Your task to perform on an android device: turn off sleep mode Image 0: 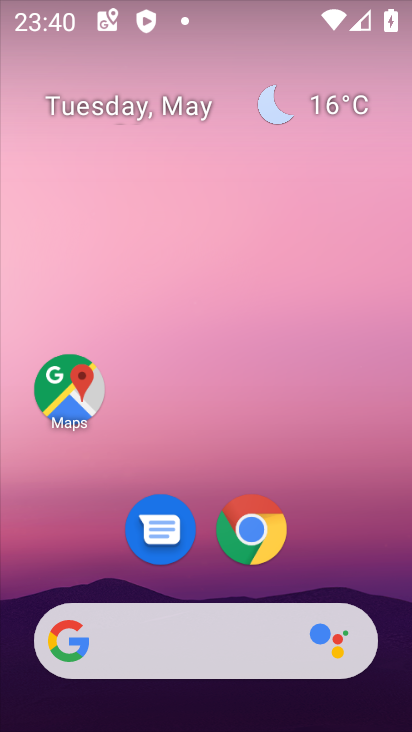
Step 0: drag from (87, 596) to (167, 91)
Your task to perform on an android device: turn off sleep mode Image 1: 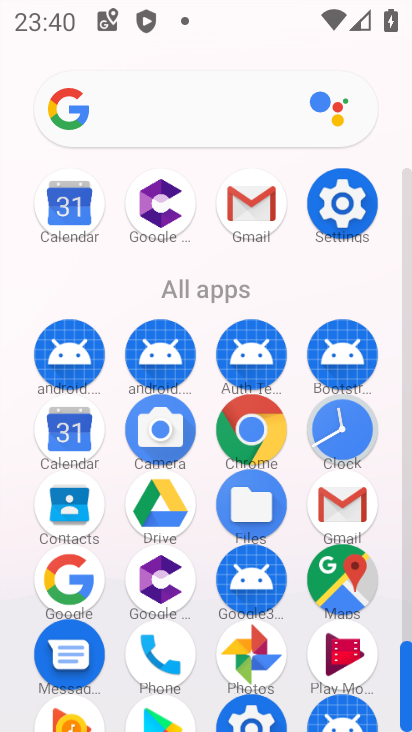
Step 1: drag from (174, 616) to (248, 274)
Your task to perform on an android device: turn off sleep mode Image 2: 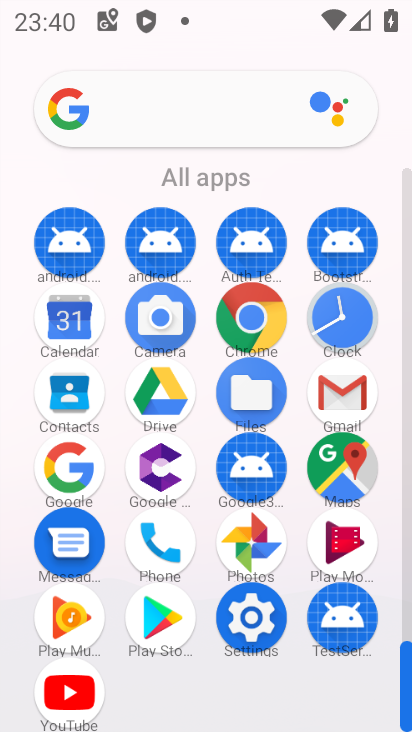
Step 2: click (275, 622)
Your task to perform on an android device: turn off sleep mode Image 3: 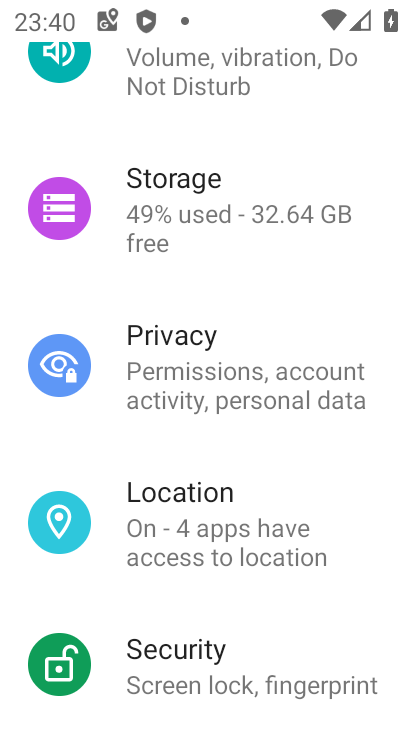
Step 3: drag from (206, 233) to (157, 614)
Your task to perform on an android device: turn off sleep mode Image 4: 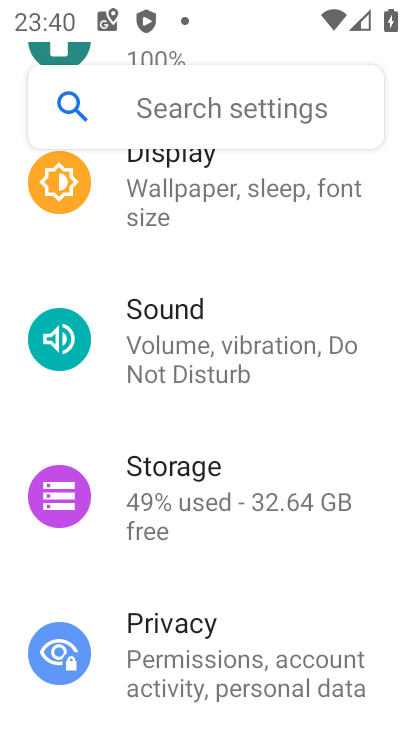
Step 4: click (169, 221)
Your task to perform on an android device: turn off sleep mode Image 5: 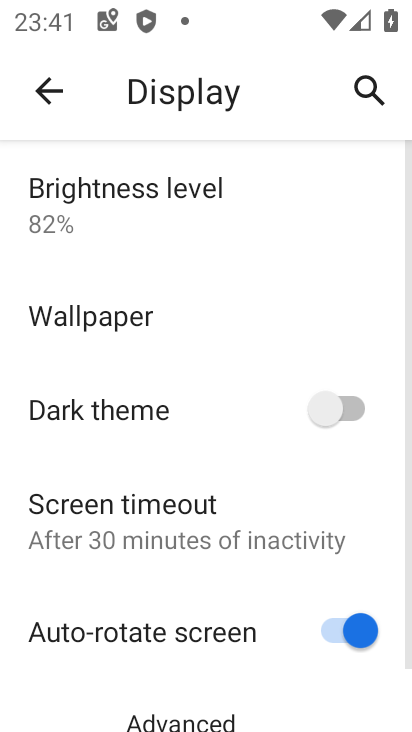
Step 5: drag from (165, 687) to (240, 223)
Your task to perform on an android device: turn off sleep mode Image 6: 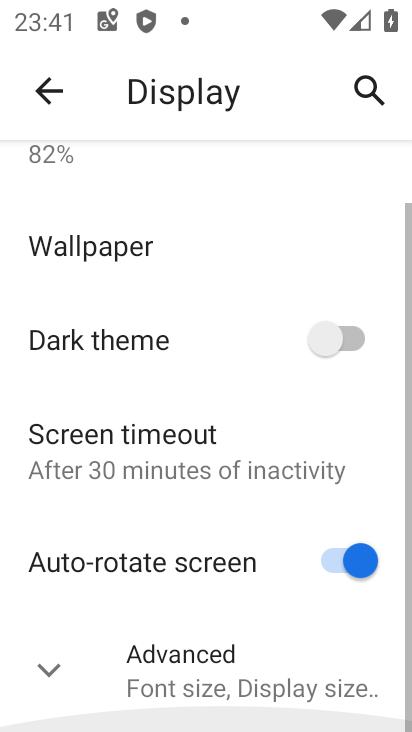
Step 6: click (162, 660)
Your task to perform on an android device: turn off sleep mode Image 7: 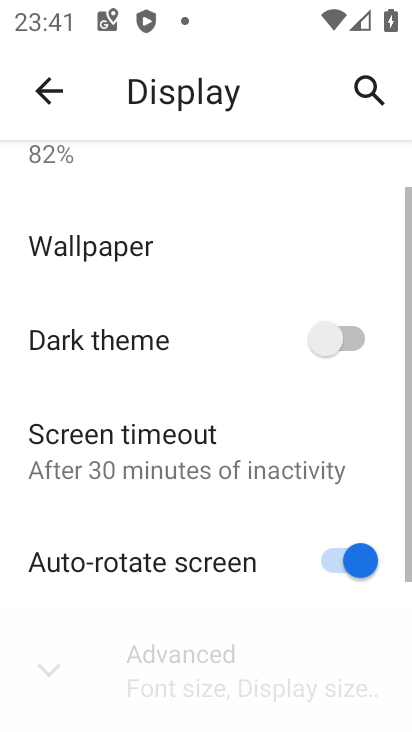
Step 7: task complete